Your task to perform on an android device: Show me popular games on the Play Store Image 0: 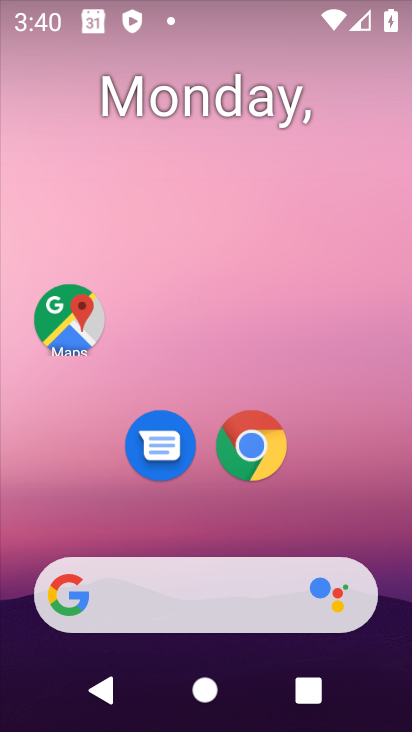
Step 0: press home button
Your task to perform on an android device: Show me popular games on the Play Store Image 1: 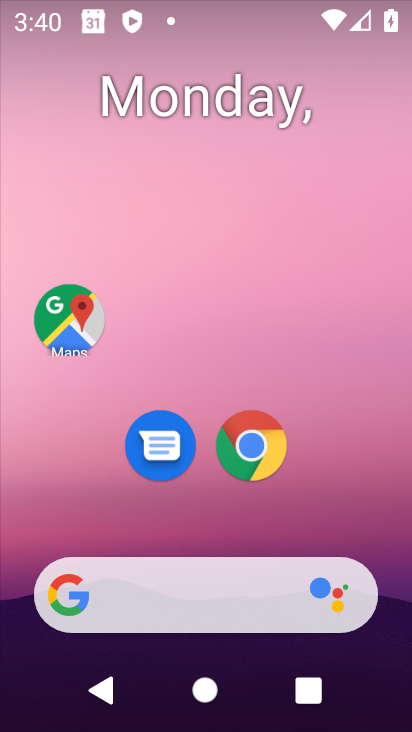
Step 1: drag from (363, 522) to (374, 20)
Your task to perform on an android device: Show me popular games on the Play Store Image 2: 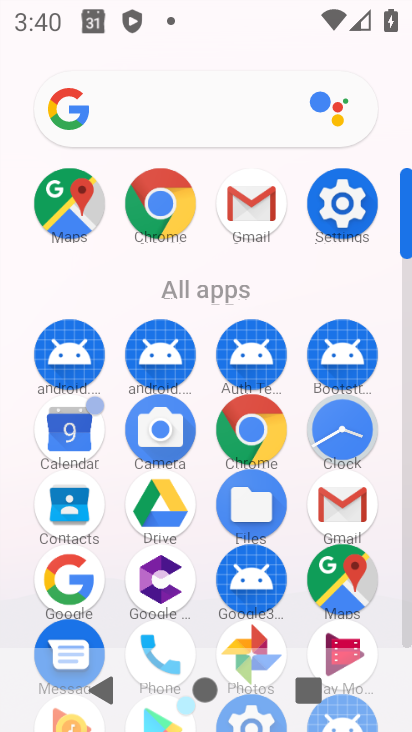
Step 2: click (399, 625)
Your task to perform on an android device: Show me popular games on the Play Store Image 3: 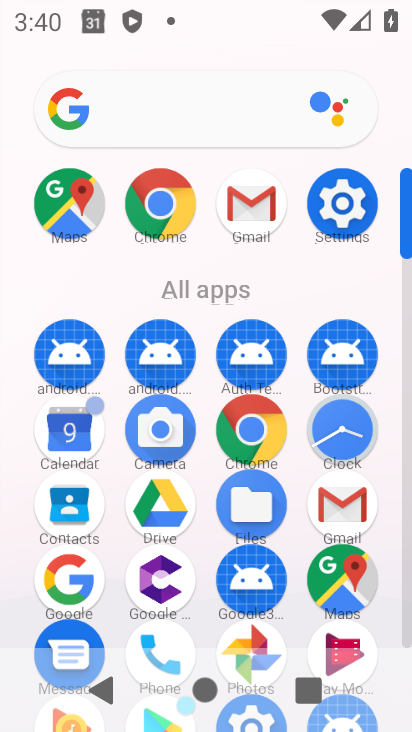
Step 3: click (402, 635)
Your task to perform on an android device: Show me popular games on the Play Store Image 4: 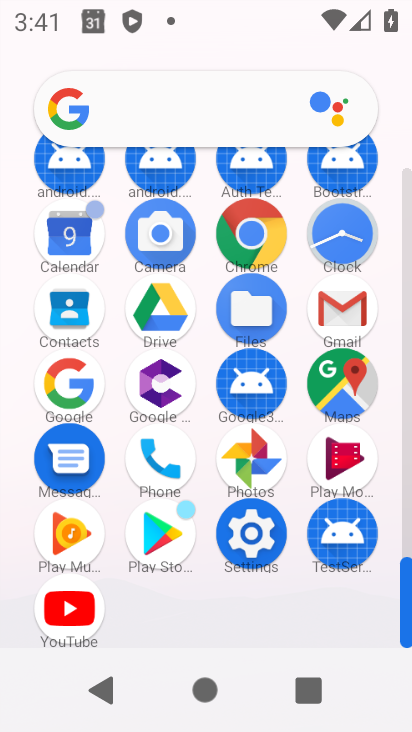
Step 4: click (166, 522)
Your task to perform on an android device: Show me popular games on the Play Store Image 5: 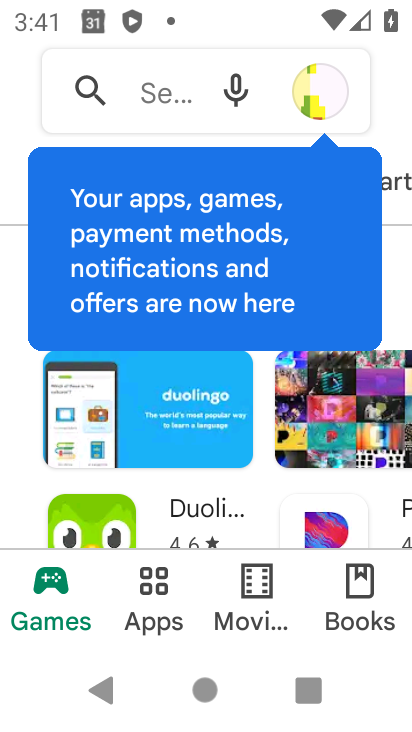
Step 5: click (182, 85)
Your task to perform on an android device: Show me popular games on the Play Store Image 6: 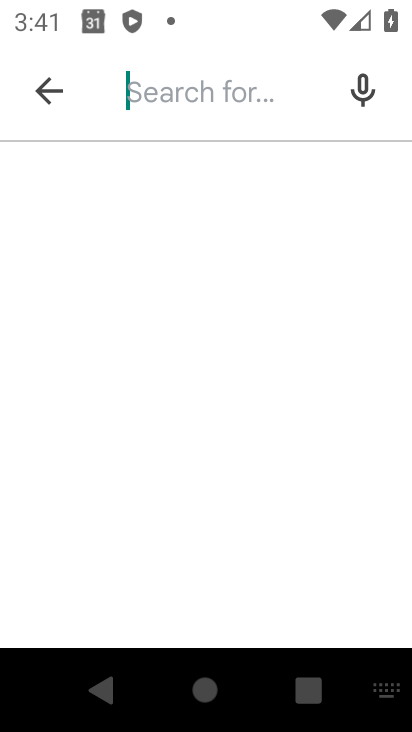
Step 6: type "Show me popular games"
Your task to perform on an android device: Show me popular games on the Play Store Image 7: 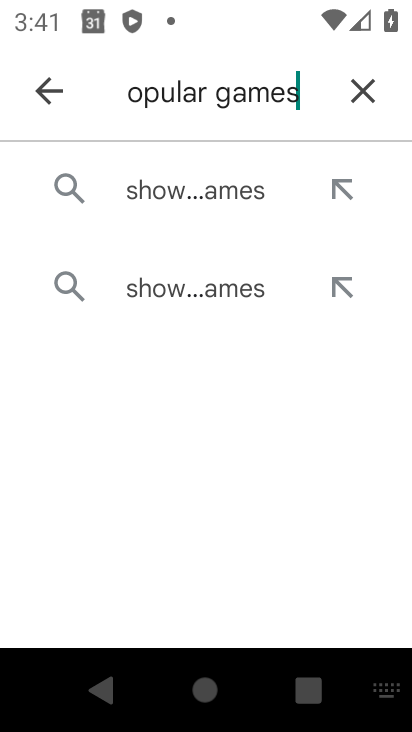
Step 7: click (352, 87)
Your task to perform on an android device: Show me popular games on the Play Store Image 8: 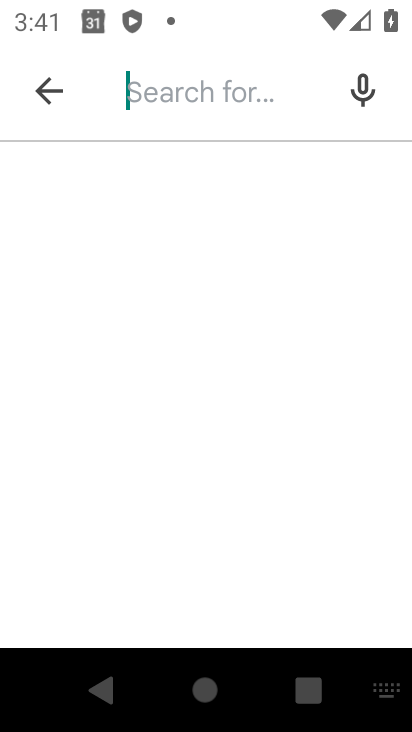
Step 8: type "Show me popular games"
Your task to perform on an android device: Show me popular games on the Play Store Image 9: 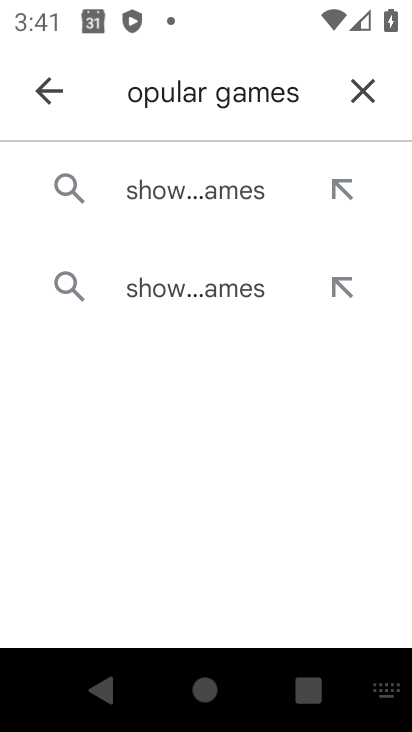
Step 9: click (217, 194)
Your task to perform on an android device: Show me popular games on the Play Store Image 10: 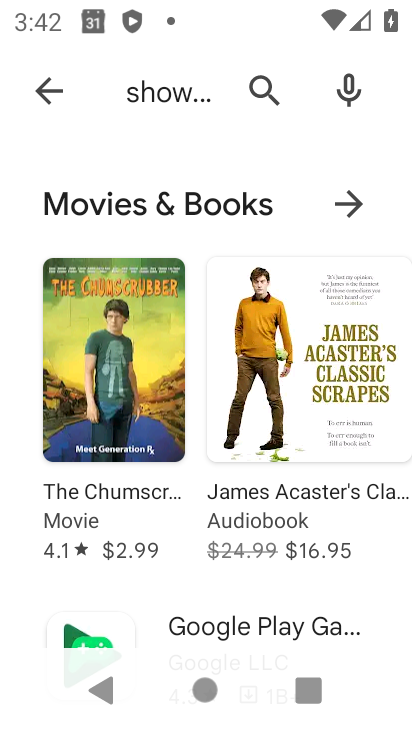
Step 10: click (259, 102)
Your task to perform on an android device: Show me popular games on the Play Store Image 11: 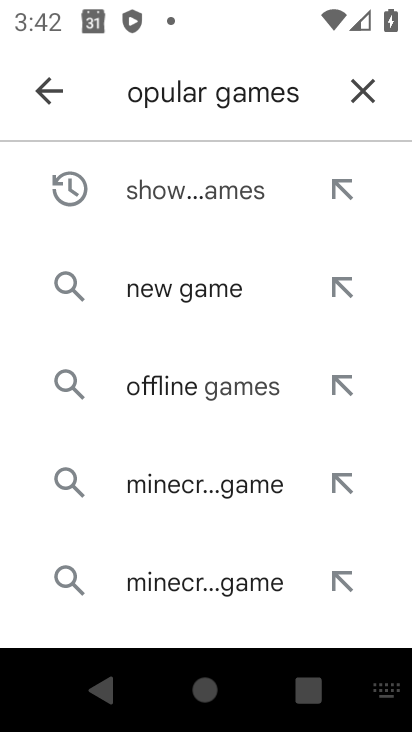
Step 11: click (247, 174)
Your task to perform on an android device: Show me popular games on the Play Store Image 12: 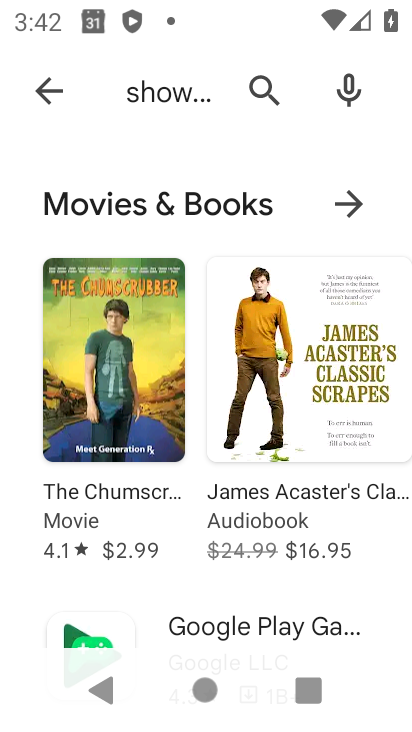
Step 12: task complete